Your task to perform on an android device: Open settings Image 0: 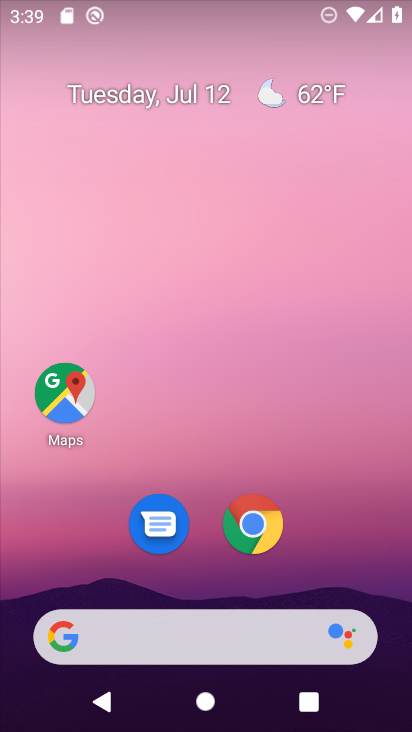
Step 0: drag from (335, 564) to (361, 0)
Your task to perform on an android device: Open settings Image 1: 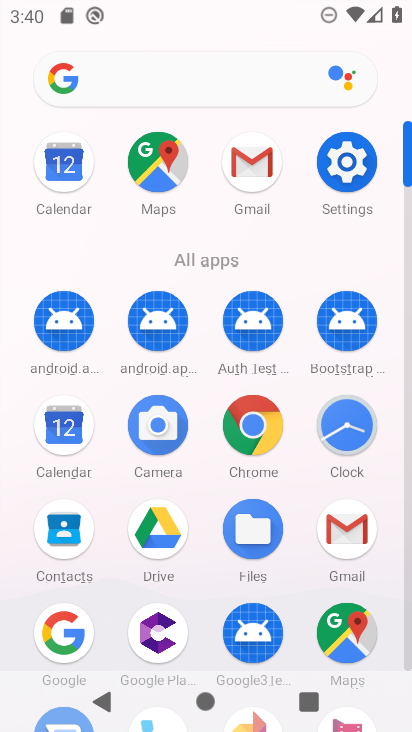
Step 1: click (349, 160)
Your task to perform on an android device: Open settings Image 2: 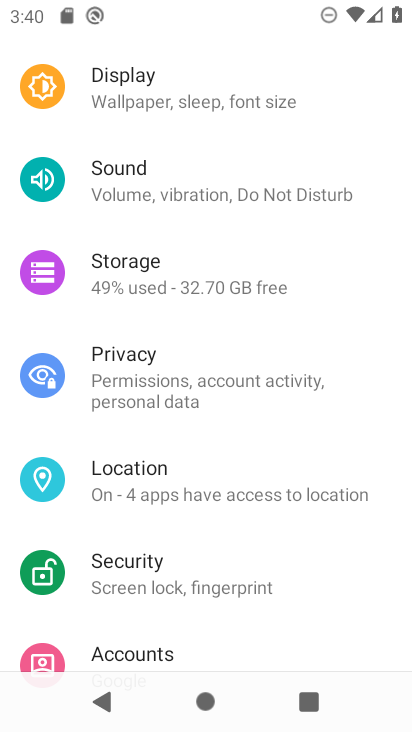
Step 2: task complete